Your task to perform on an android device: add a contact Image 0: 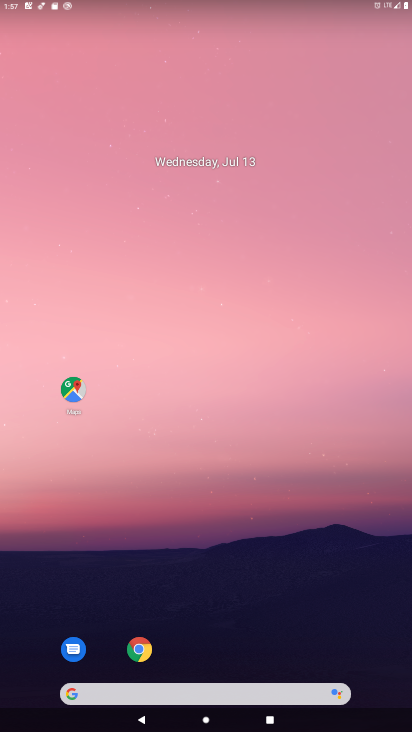
Step 0: press home button
Your task to perform on an android device: add a contact Image 1: 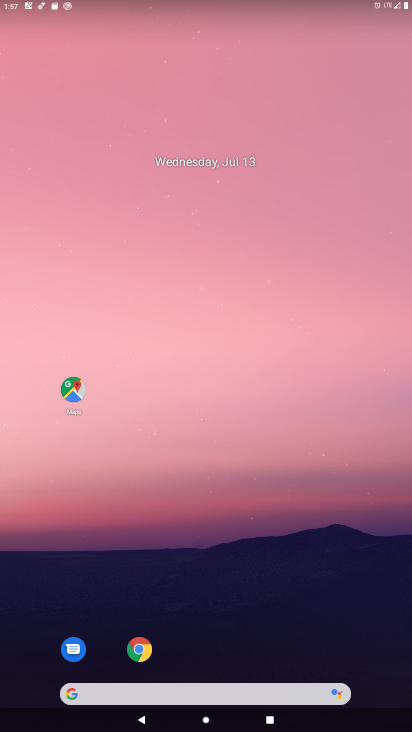
Step 1: drag from (335, 648) to (331, 68)
Your task to perform on an android device: add a contact Image 2: 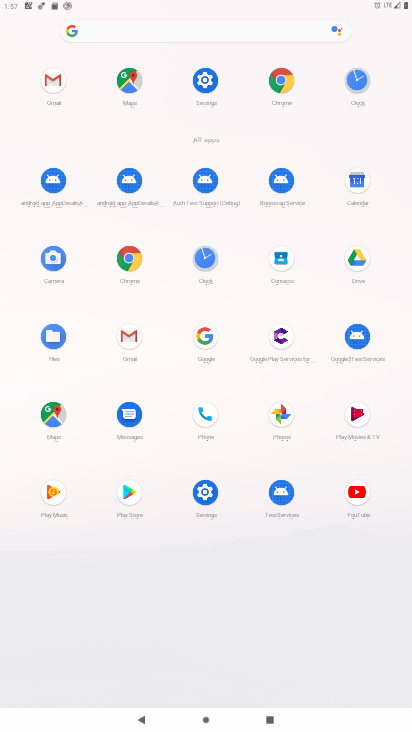
Step 2: click (279, 257)
Your task to perform on an android device: add a contact Image 3: 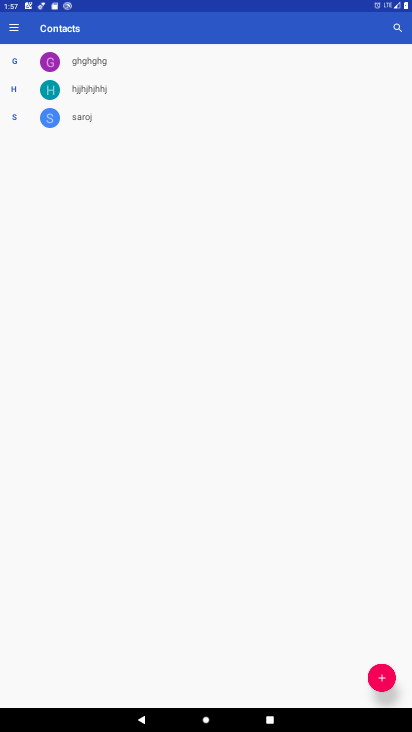
Step 3: click (384, 677)
Your task to perform on an android device: add a contact Image 4: 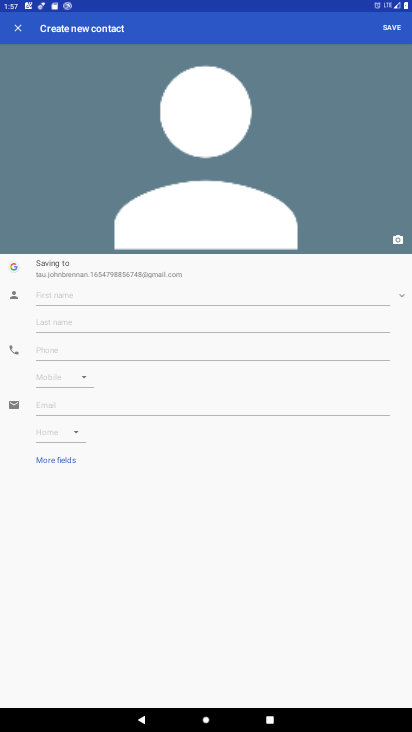
Step 4: click (363, 286)
Your task to perform on an android device: add a contact Image 5: 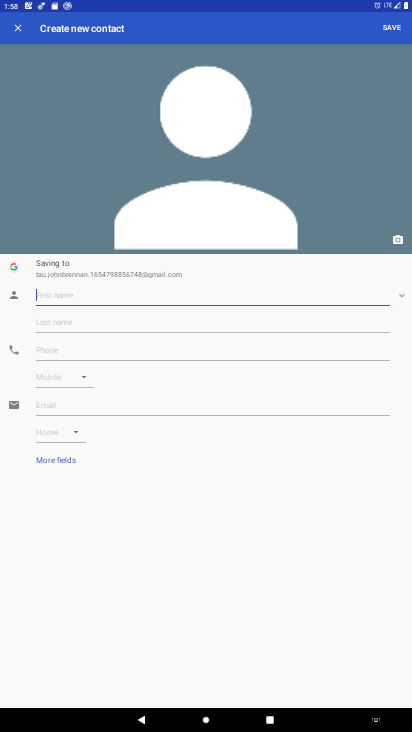
Step 5: type "BBT"
Your task to perform on an android device: add a contact Image 6: 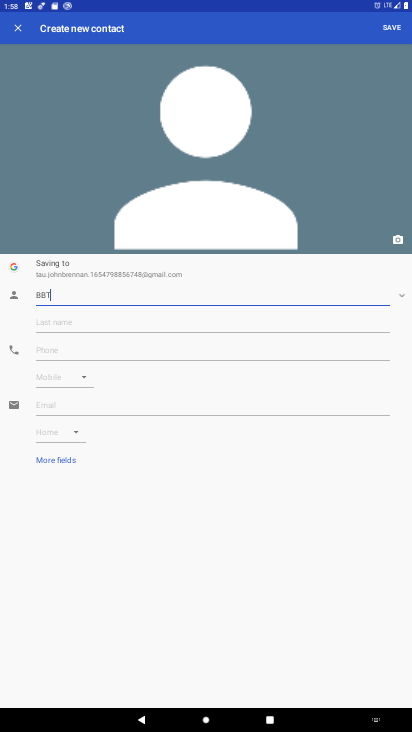
Step 6: click (319, 342)
Your task to perform on an android device: add a contact Image 7: 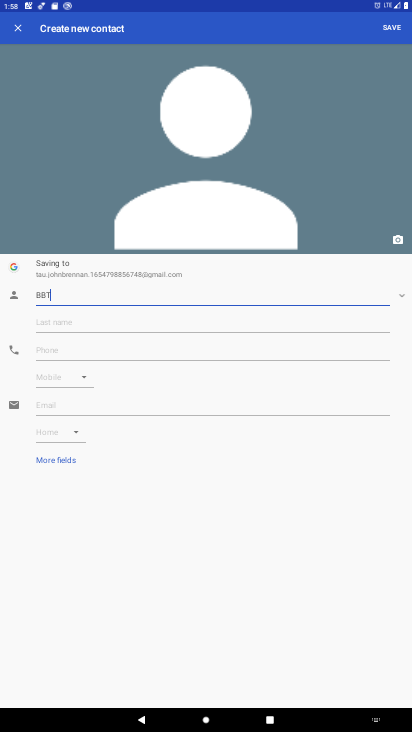
Step 7: click (319, 342)
Your task to perform on an android device: add a contact Image 8: 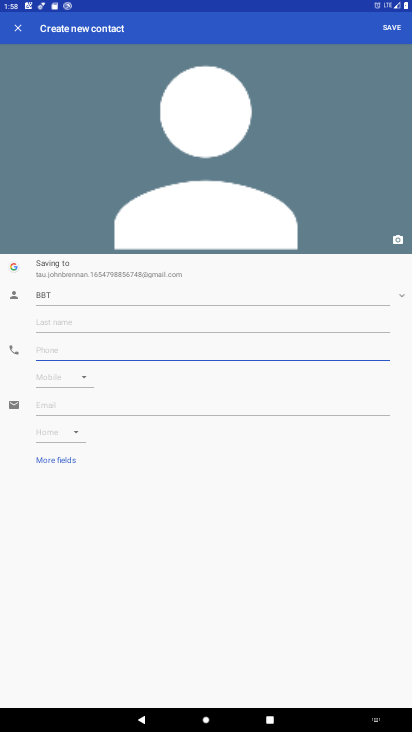
Step 8: type "345987000"
Your task to perform on an android device: add a contact Image 9: 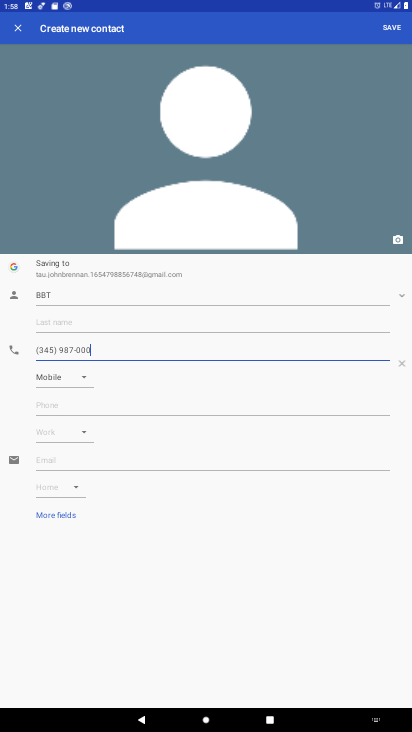
Step 9: click (385, 27)
Your task to perform on an android device: add a contact Image 10: 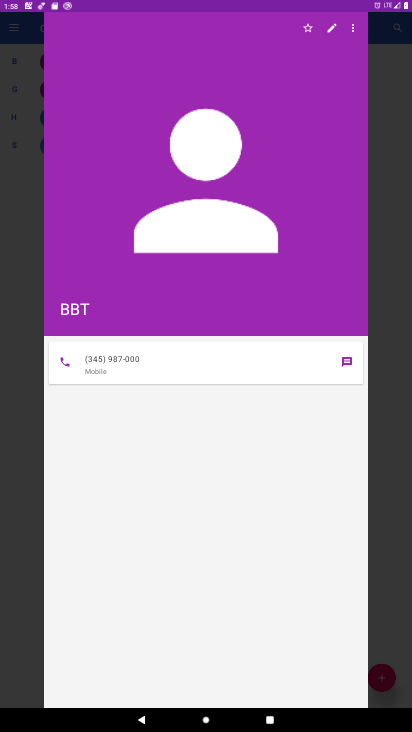
Step 10: task complete